Your task to perform on an android device: turn on notifications settings in the gmail app Image 0: 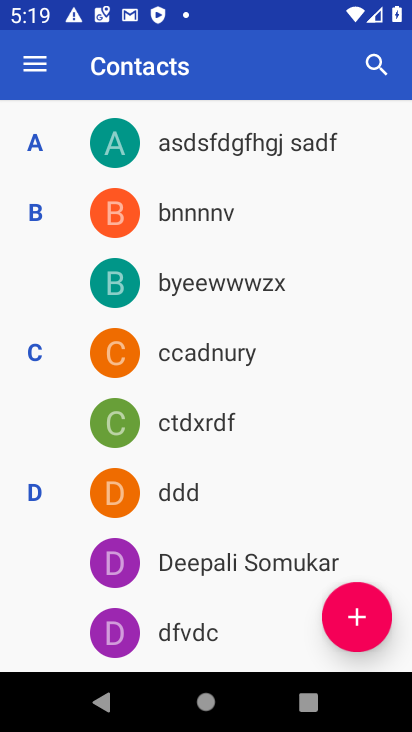
Step 0: drag from (172, 589) to (128, 244)
Your task to perform on an android device: turn on notifications settings in the gmail app Image 1: 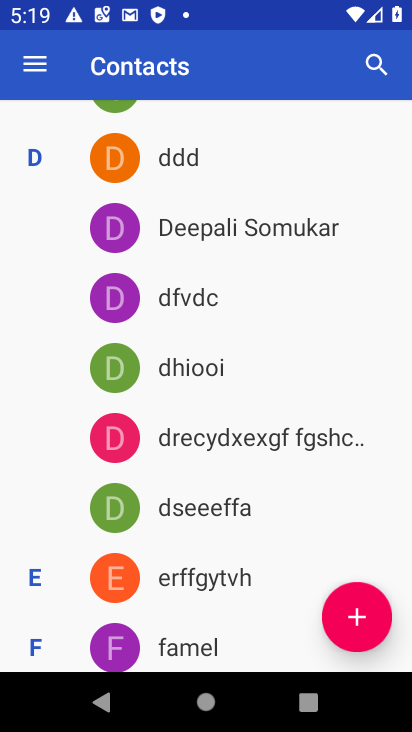
Step 1: press home button
Your task to perform on an android device: turn on notifications settings in the gmail app Image 2: 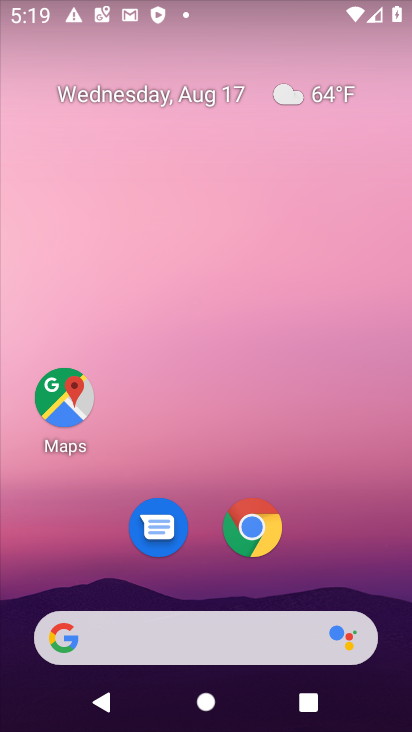
Step 2: drag from (135, 566) to (170, 255)
Your task to perform on an android device: turn on notifications settings in the gmail app Image 3: 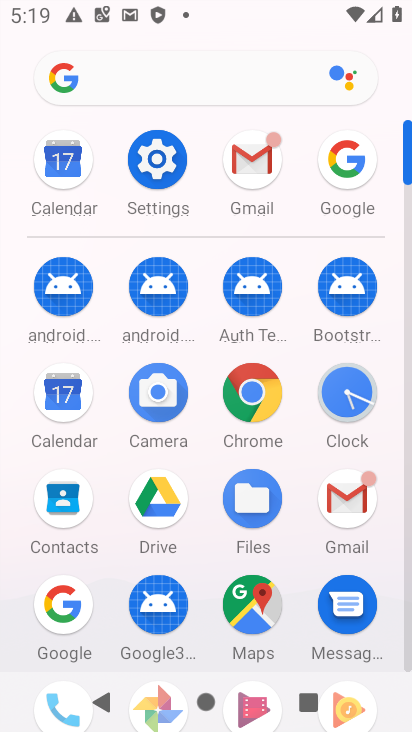
Step 3: click (239, 169)
Your task to perform on an android device: turn on notifications settings in the gmail app Image 4: 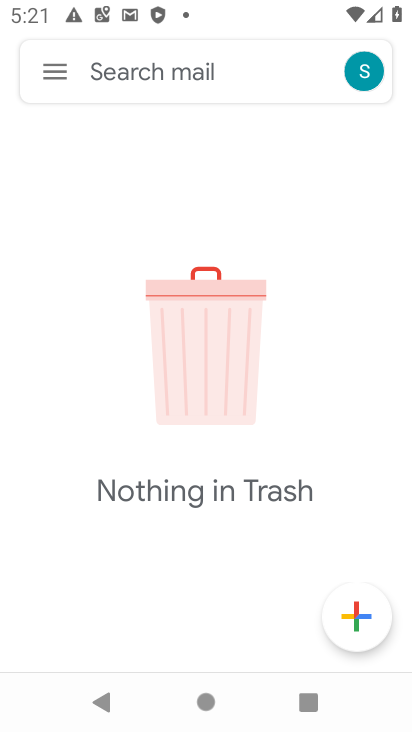
Step 4: click (46, 75)
Your task to perform on an android device: turn on notifications settings in the gmail app Image 5: 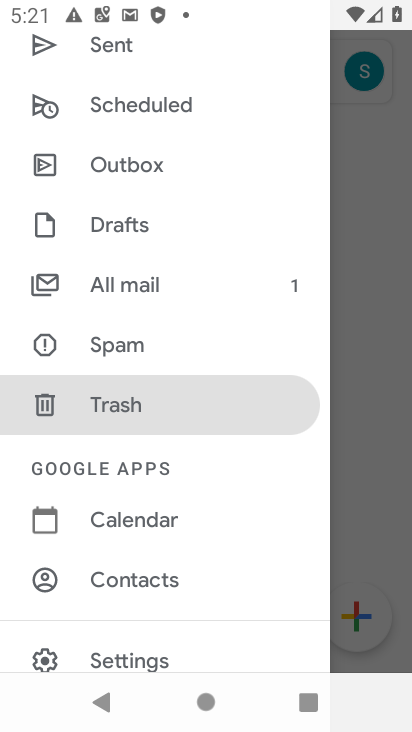
Step 5: click (57, 658)
Your task to perform on an android device: turn on notifications settings in the gmail app Image 6: 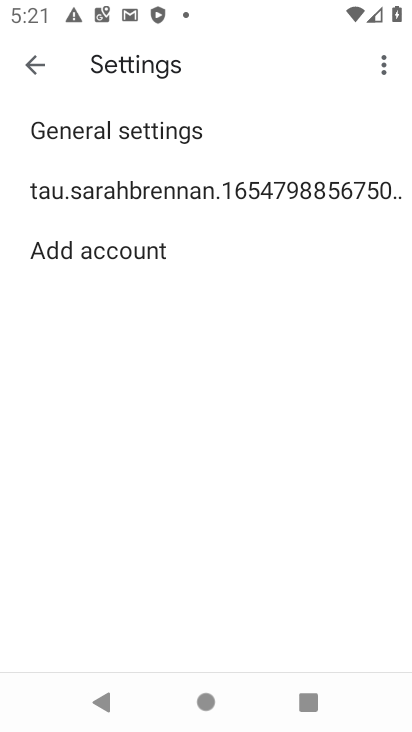
Step 6: click (95, 187)
Your task to perform on an android device: turn on notifications settings in the gmail app Image 7: 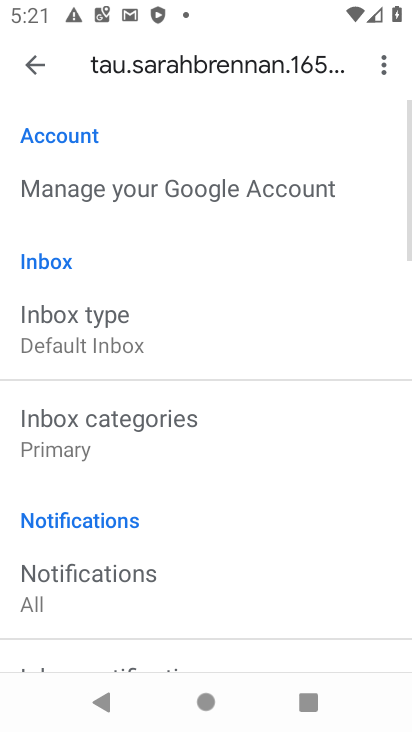
Step 7: drag from (94, 595) to (91, 191)
Your task to perform on an android device: turn on notifications settings in the gmail app Image 8: 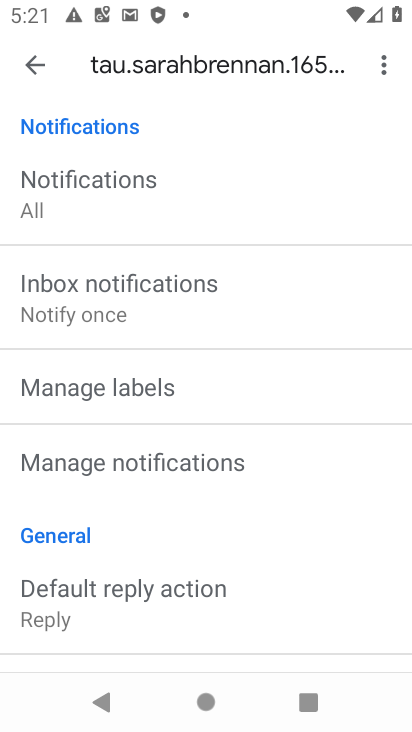
Step 8: click (73, 446)
Your task to perform on an android device: turn on notifications settings in the gmail app Image 9: 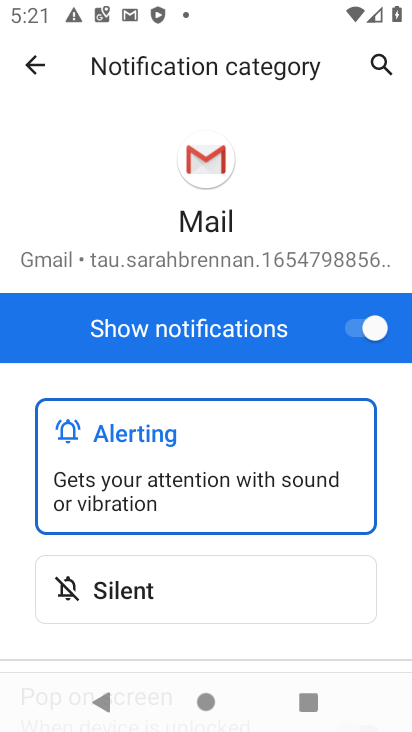
Step 9: task complete